Your task to perform on an android device: Go to location settings Image 0: 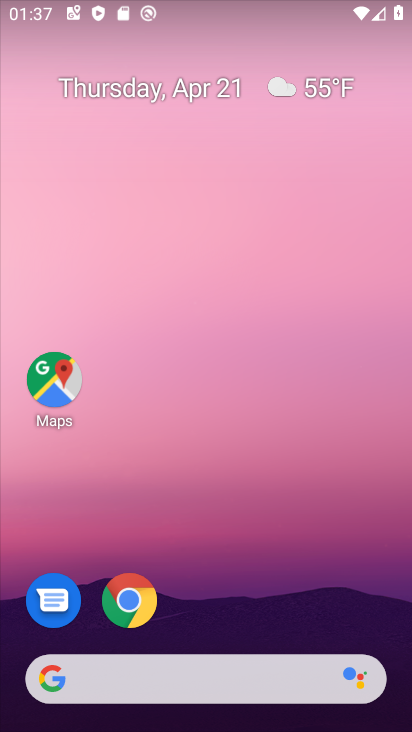
Step 0: drag from (250, 544) to (310, 271)
Your task to perform on an android device: Go to location settings Image 1: 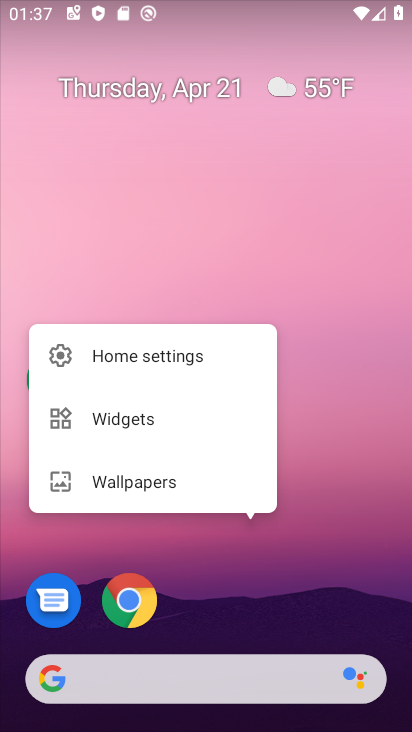
Step 1: drag from (308, 589) to (352, 110)
Your task to perform on an android device: Go to location settings Image 2: 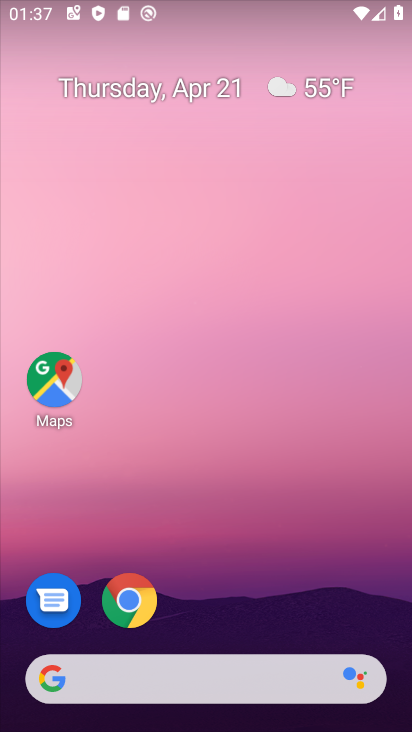
Step 2: drag from (258, 475) to (258, 137)
Your task to perform on an android device: Go to location settings Image 3: 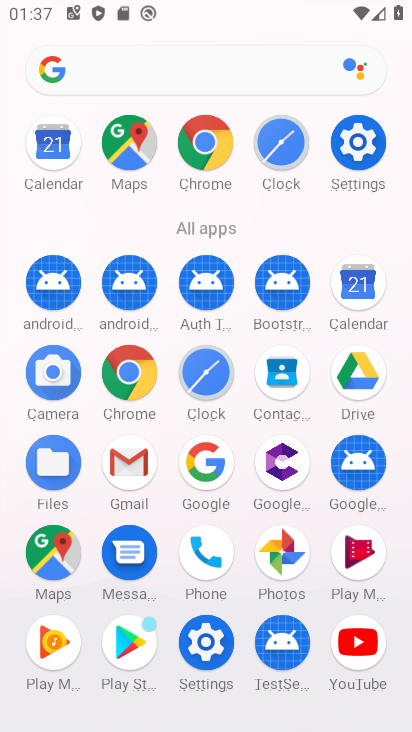
Step 3: click (355, 146)
Your task to perform on an android device: Go to location settings Image 4: 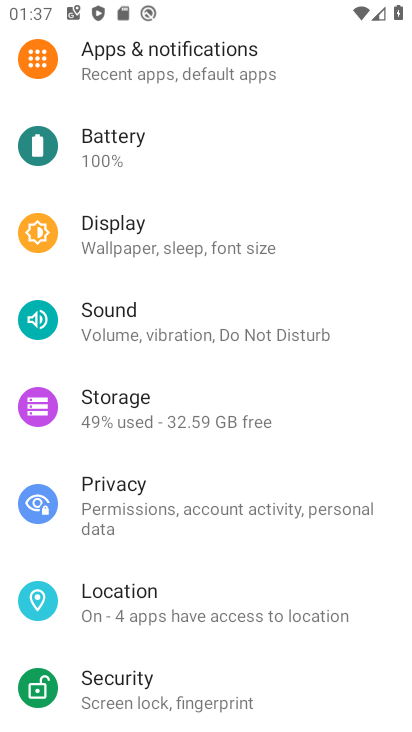
Step 4: click (184, 600)
Your task to perform on an android device: Go to location settings Image 5: 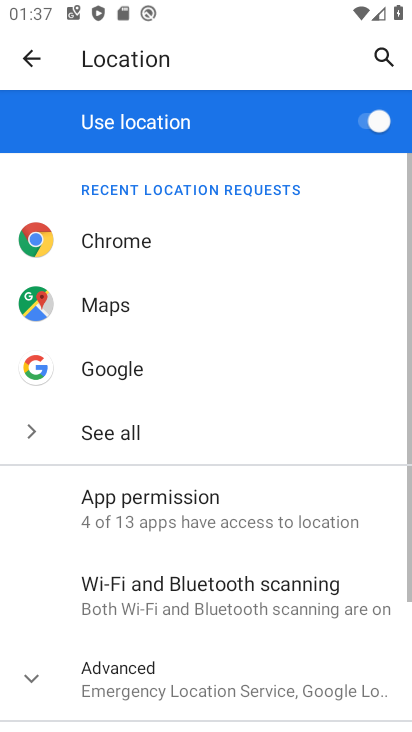
Step 5: task complete